Your task to perform on an android device: turn on wifi Image 0: 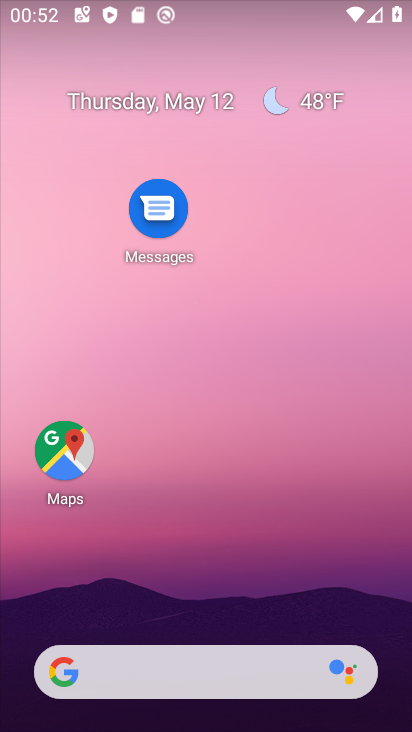
Step 0: drag from (197, 627) to (124, 71)
Your task to perform on an android device: turn on wifi Image 1: 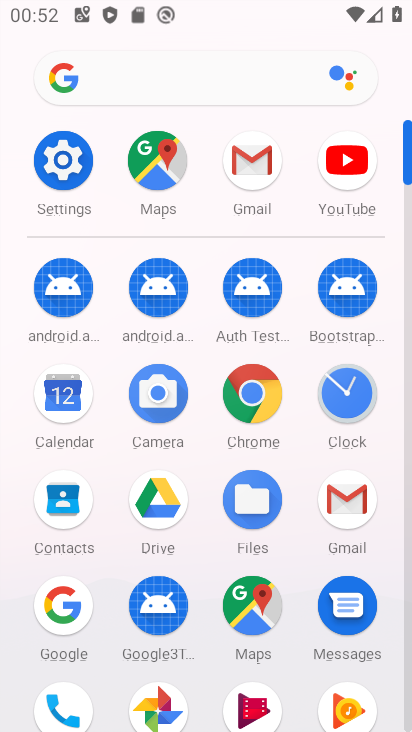
Step 1: click (58, 166)
Your task to perform on an android device: turn on wifi Image 2: 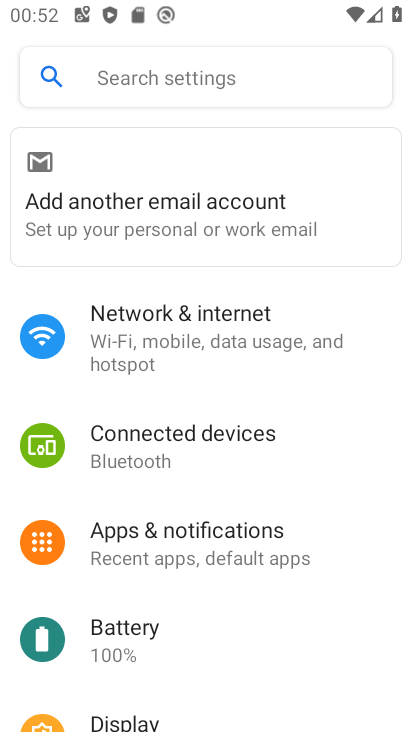
Step 2: click (170, 319)
Your task to perform on an android device: turn on wifi Image 3: 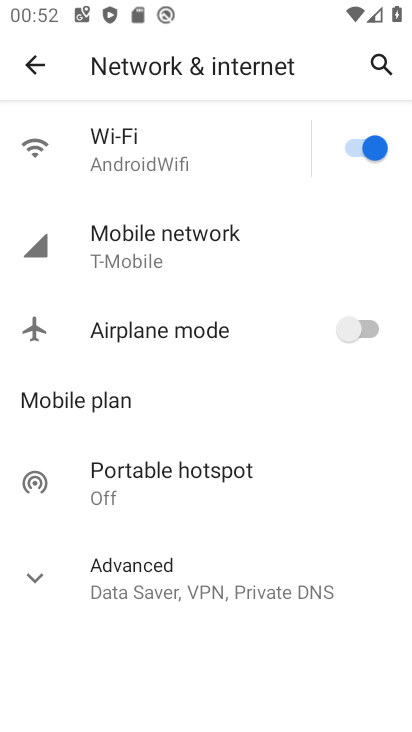
Step 3: click (362, 143)
Your task to perform on an android device: turn on wifi Image 4: 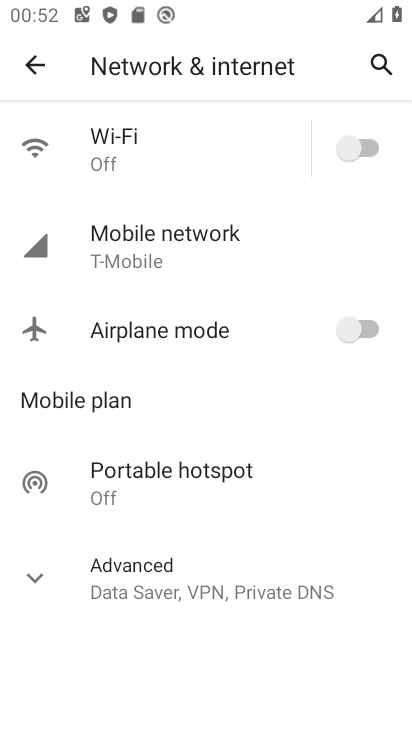
Step 4: task complete